Your task to perform on an android device: open sync settings in chrome Image 0: 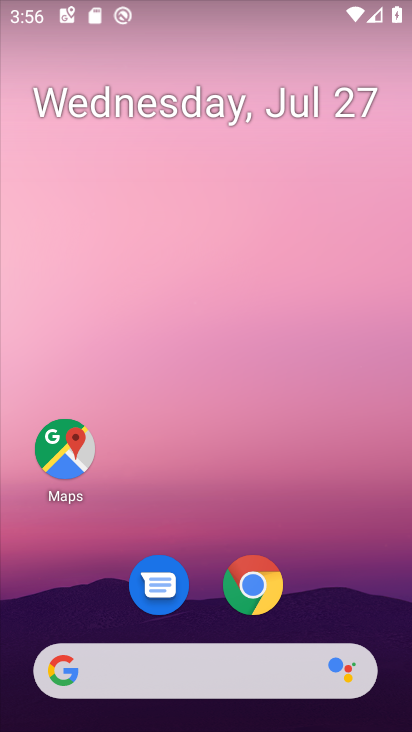
Step 0: click (259, 584)
Your task to perform on an android device: open sync settings in chrome Image 1: 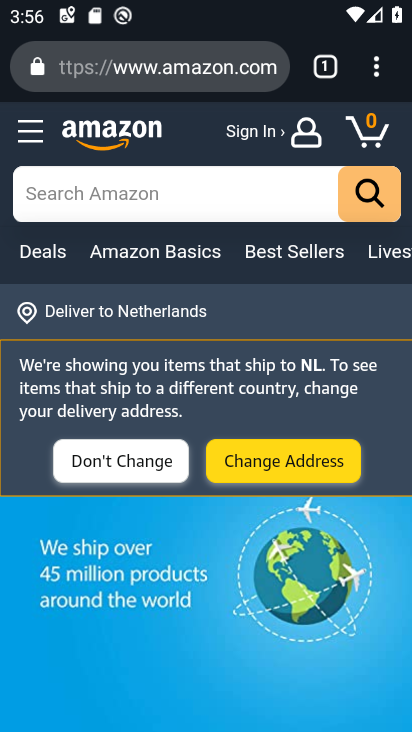
Step 1: click (376, 72)
Your task to perform on an android device: open sync settings in chrome Image 2: 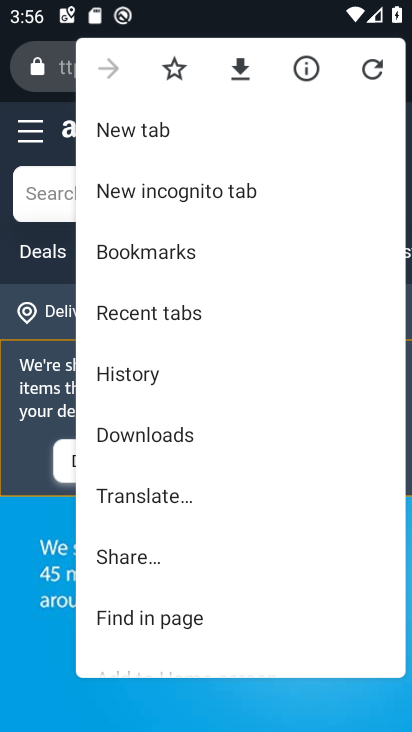
Step 2: drag from (237, 477) to (209, 152)
Your task to perform on an android device: open sync settings in chrome Image 3: 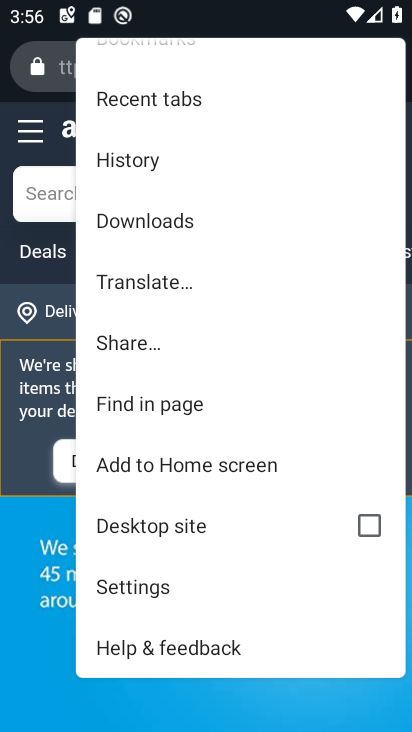
Step 3: click (141, 592)
Your task to perform on an android device: open sync settings in chrome Image 4: 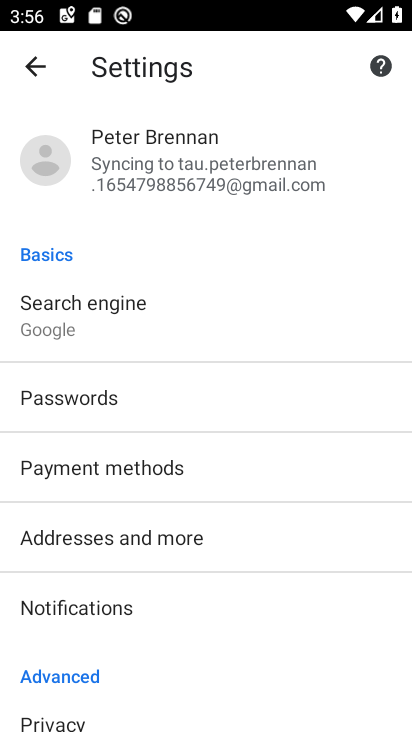
Step 4: click (213, 173)
Your task to perform on an android device: open sync settings in chrome Image 5: 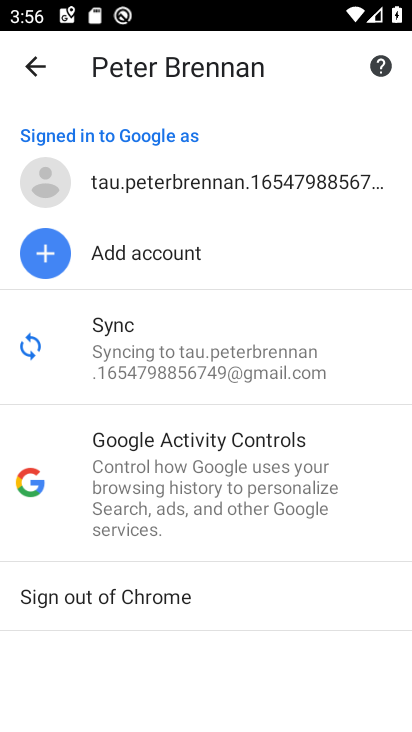
Step 5: click (190, 351)
Your task to perform on an android device: open sync settings in chrome Image 6: 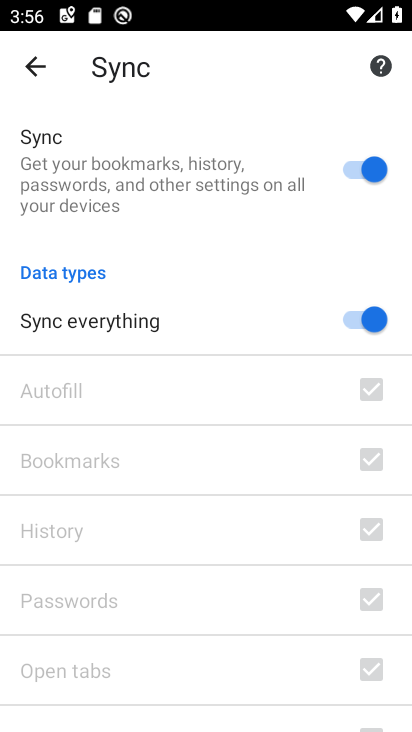
Step 6: task complete